Your task to perform on an android device: Open display settings Image 0: 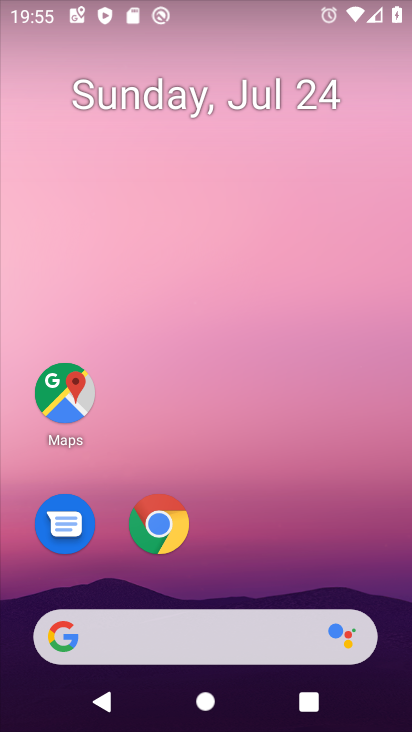
Step 0: drag from (267, 562) to (277, 61)
Your task to perform on an android device: Open display settings Image 1: 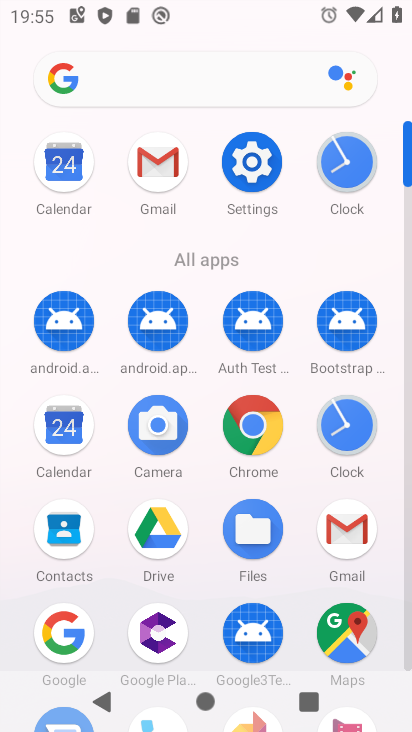
Step 1: click (247, 163)
Your task to perform on an android device: Open display settings Image 2: 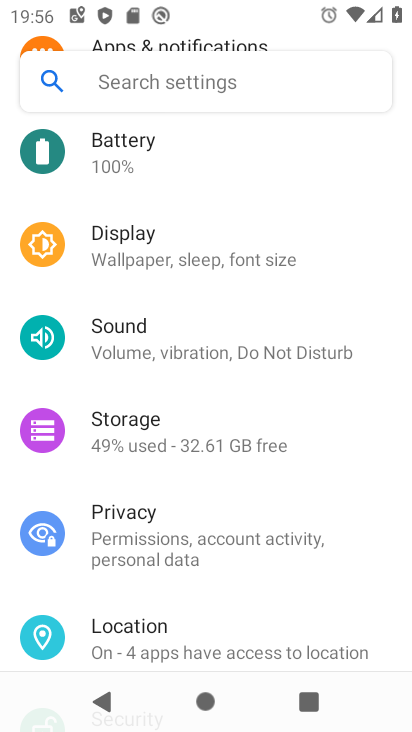
Step 2: click (215, 257)
Your task to perform on an android device: Open display settings Image 3: 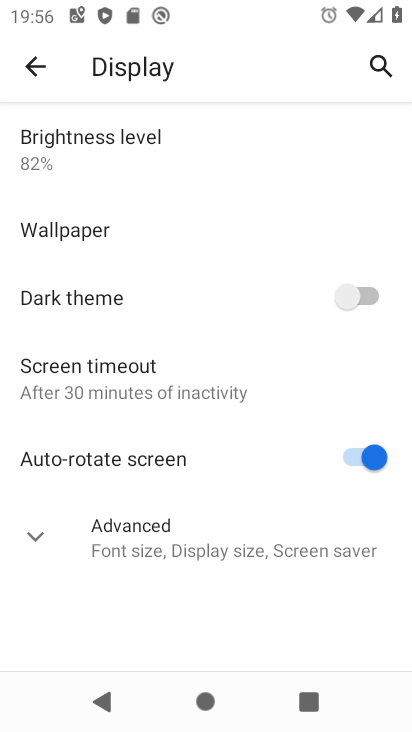
Step 3: task complete